Your task to perform on an android device: turn on the 24-hour format for clock Image 0: 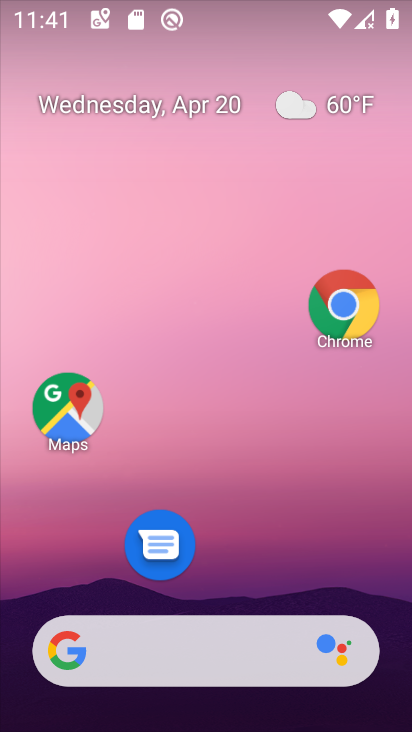
Step 0: drag from (244, 528) to (223, 330)
Your task to perform on an android device: turn on the 24-hour format for clock Image 1: 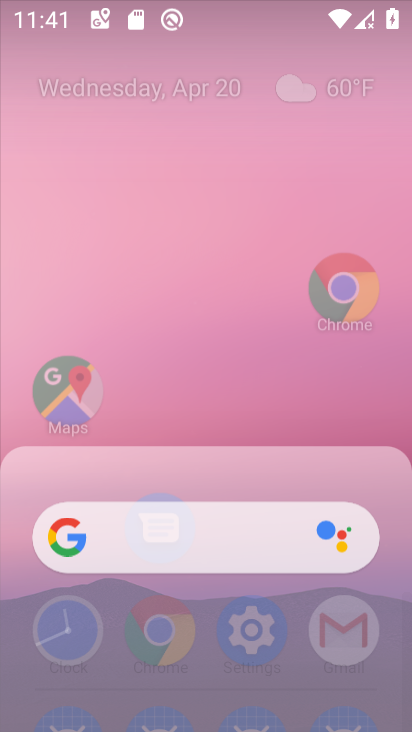
Step 1: drag from (240, 183) to (241, 111)
Your task to perform on an android device: turn on the 24-hour format for clock Image 2: 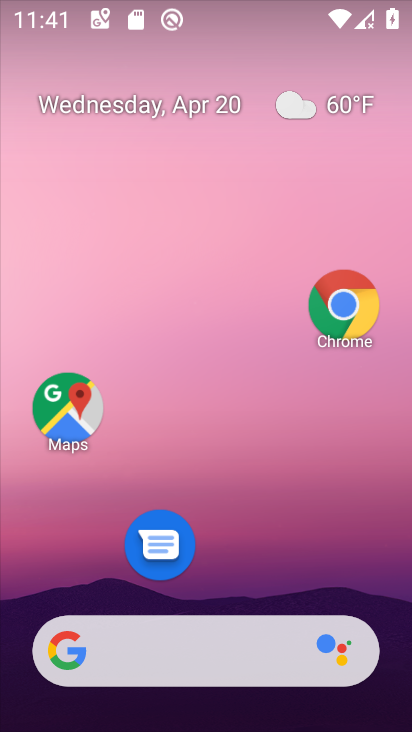
Step 2: drag from (263, 464) to (256, 320)
Your task to perform on an android device: turn on the 24-hour format for clock Image 3: 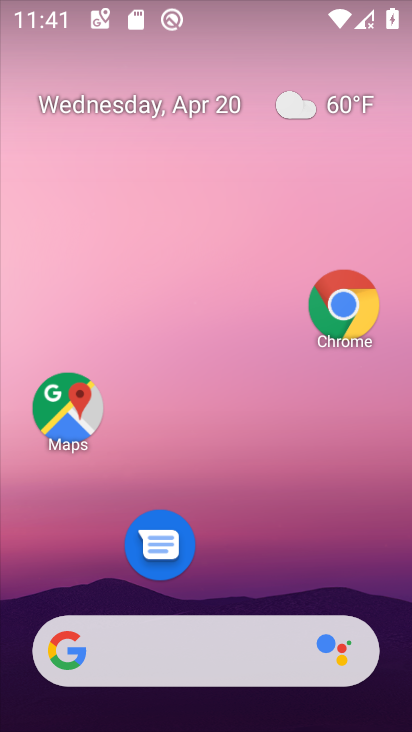
Step 3: drag from (240, 564) to (235, 293)
Your task to perform on an android device: turn on the 24-hour format for clock Image 4: 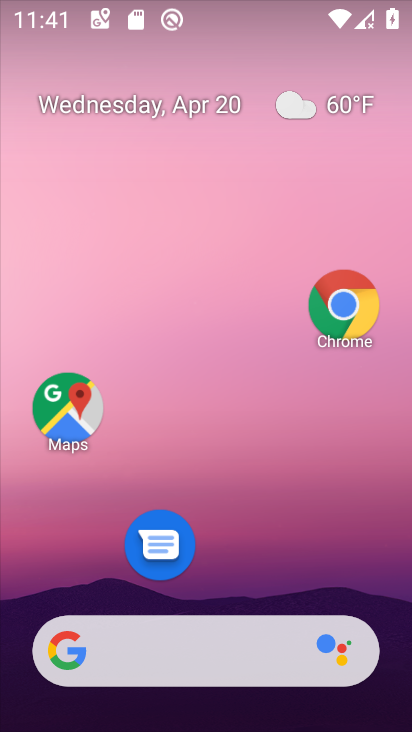
Step 4: drag from (248, 520) to (203, 111)
Your task to perform on an android device: turn on the 24-hour format for clock Image 5: 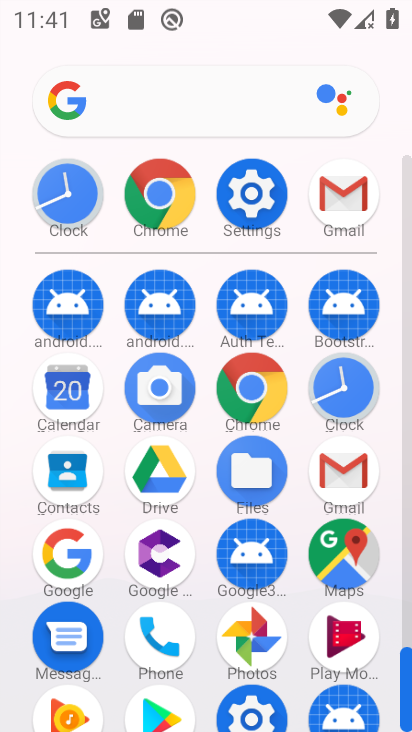
Step 5: click (354, 383)
Your task to perform on an android device: turn on the 24-hour format for clock Image 6: 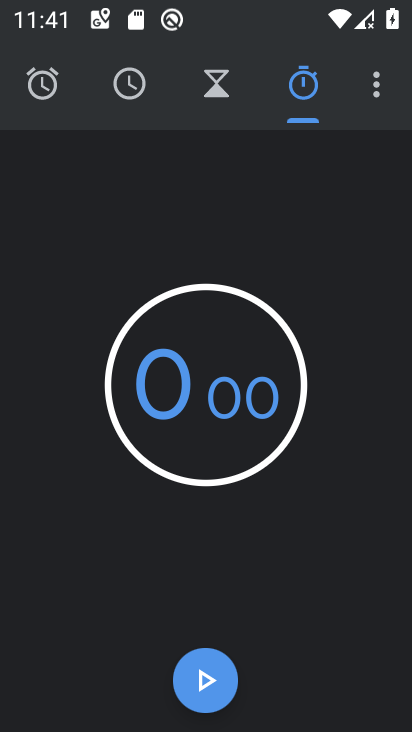
Step 6: click (367, 93)
Your task to perform on an android device: turn on the 24-hour format for clock Image 7: 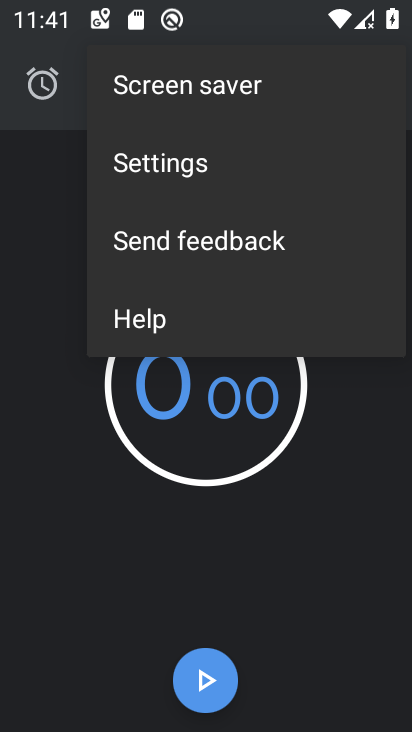
Step 7: click (119, 175)
Your task to perform on an android device: turn on the 24-hour format for clock Image 8: 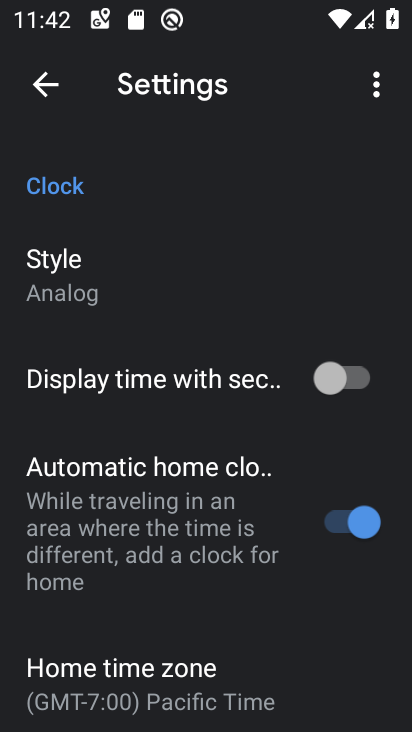
Step 8: drag from (120, 580) to (178, 195)
Your task to perform on an android device: turn on the 24-hour format for clock Image 9: 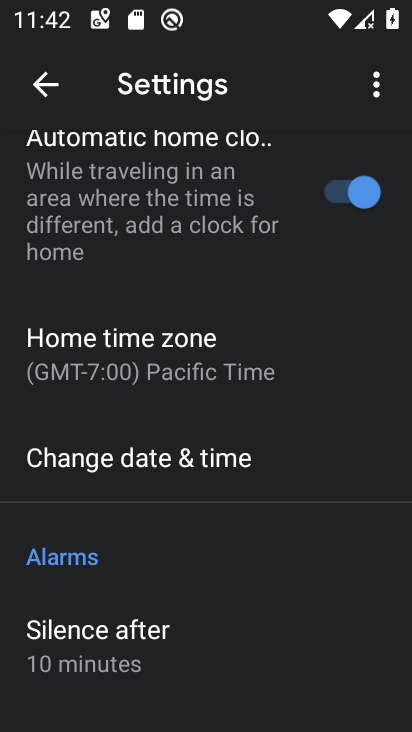
Step 9: click (205, 448)
Your task to perform on an android device: turn on the 24-hour format for clock Image 10: 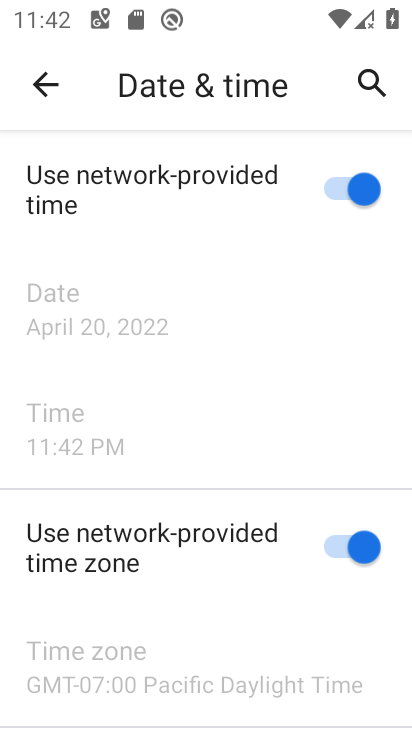
Step 10: task complete